Your task to perform on an android device: Show me popular games on the Play Store Image 0: 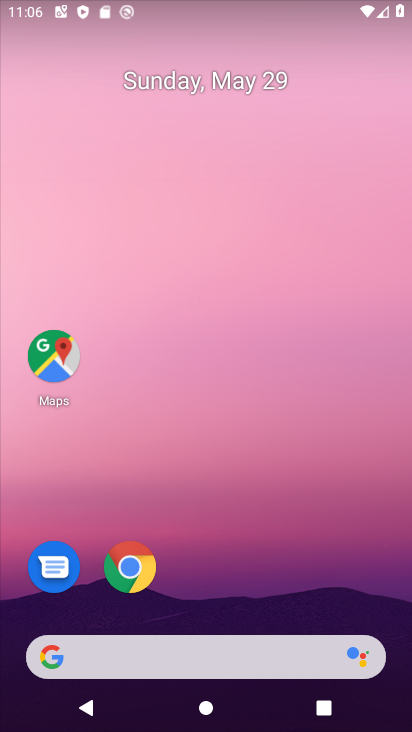
Step 0: drag from (232, 619) to (333, 41)
Your task to perform on an android device: Show me popular games on the Play Store Image 1: 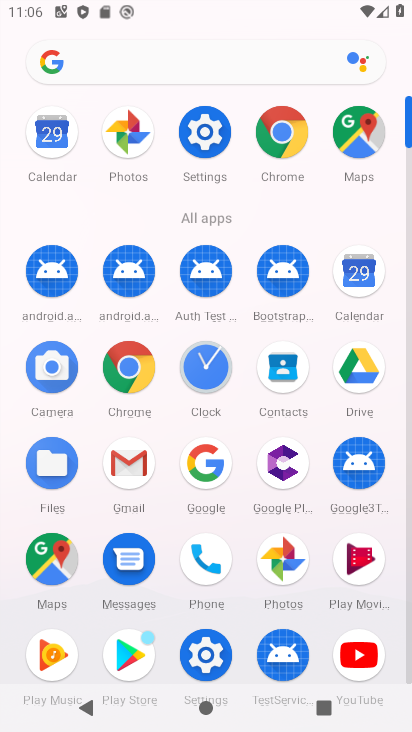
Step 1: click (140, 664)
Your task to perform on an android device: Show me popular games on the Play Store Image 2: 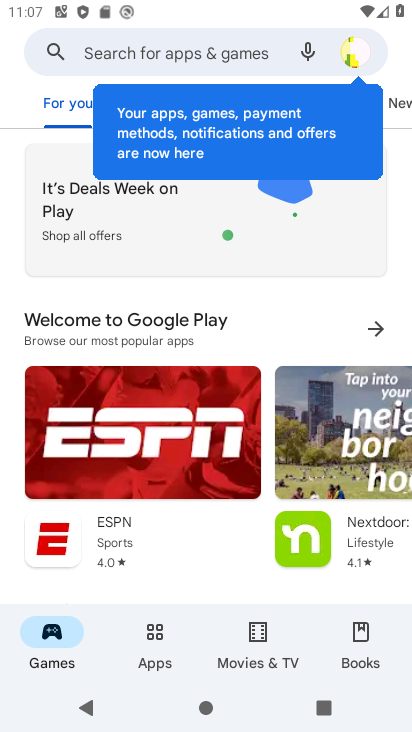
Step 2: drag from (216, 488) to (194, 33)
Your task to perform on an android device: Show me popular games on the Play Store Image 3: 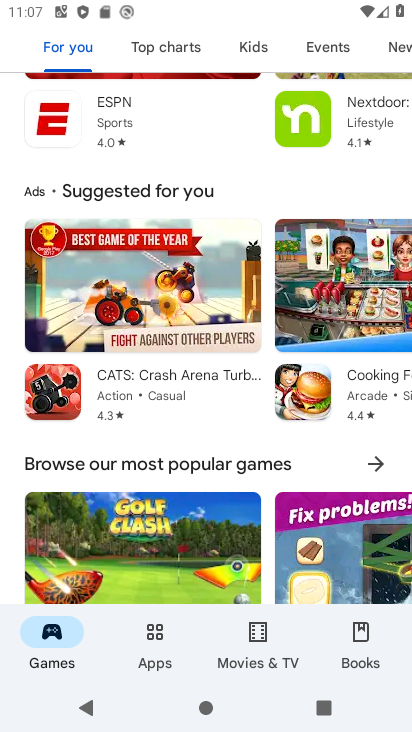
Step 3: click (367, 466)
Your task to perform on an android device: Show me popular games on the Play Store Image 4: 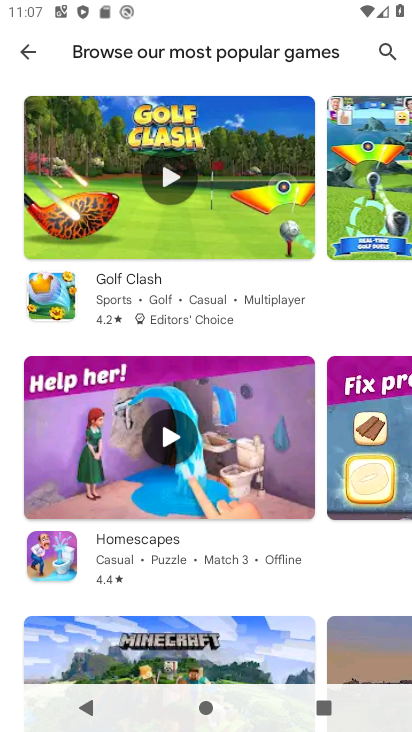
Step 4: task complete